Your task to perform on an android device: turn off improve location accuracy Image 0: 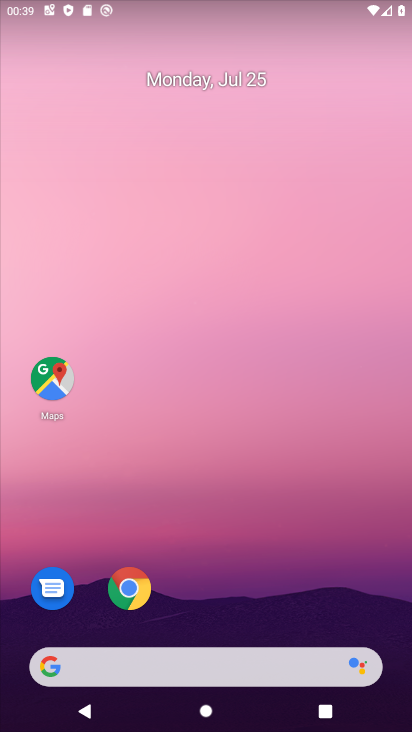
Step 0: drag from (223, 596) to (243, 18)
Your task to perform on an android device: turn off improve location accuracy Image 1: 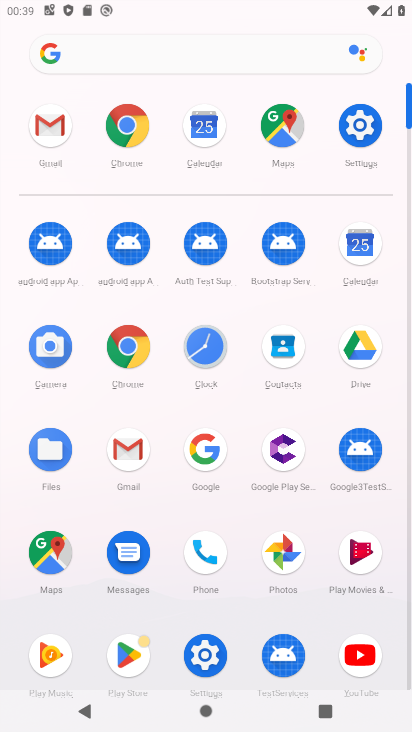
Step 1: click (203, 659)
Your task to perform on an android device: turn off improve location accuracy Image 2: 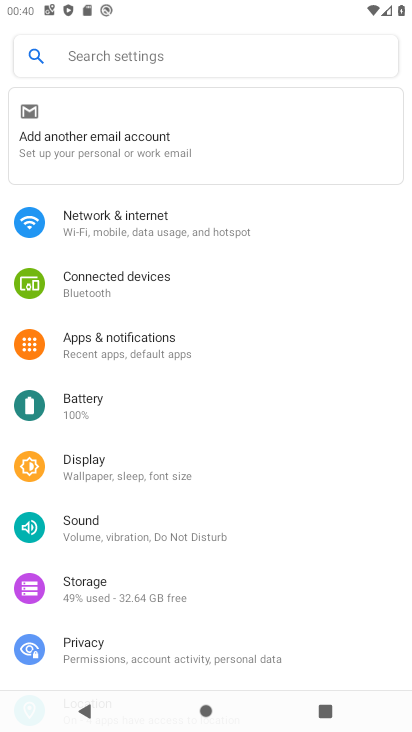
Step 2: drag from (126, 593) to (150, 304)
Your task to perform on an android device: turn off improve location accuracy Image 3: 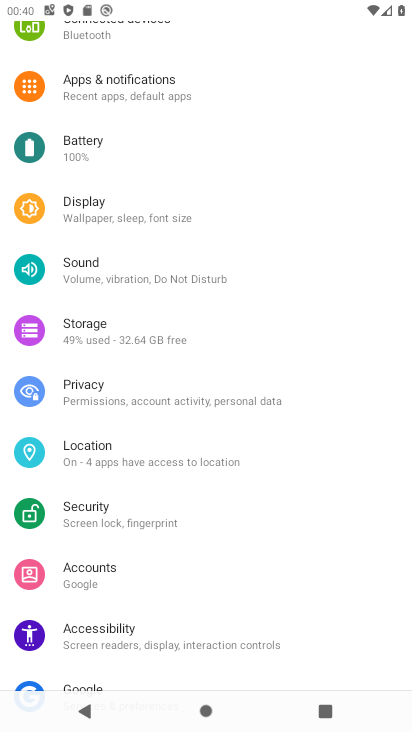
Step 3: click (124, 460)
Your task to perform on an android device: turn off improve location accuracy Image 4: 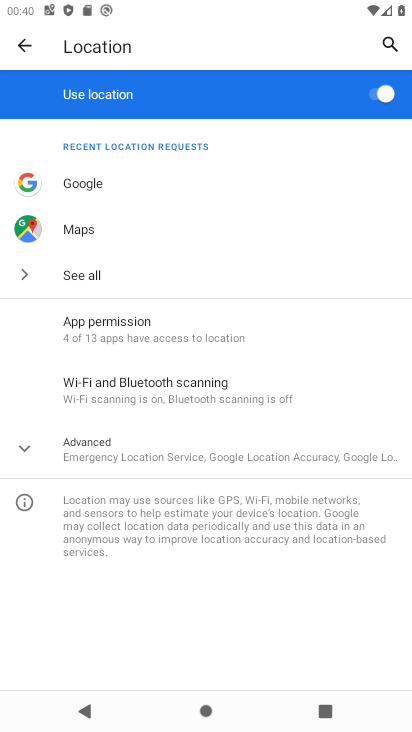
Step 4: click (145, 457)
Your task to perform on an android device: turn off improve location accuracy Image 5: 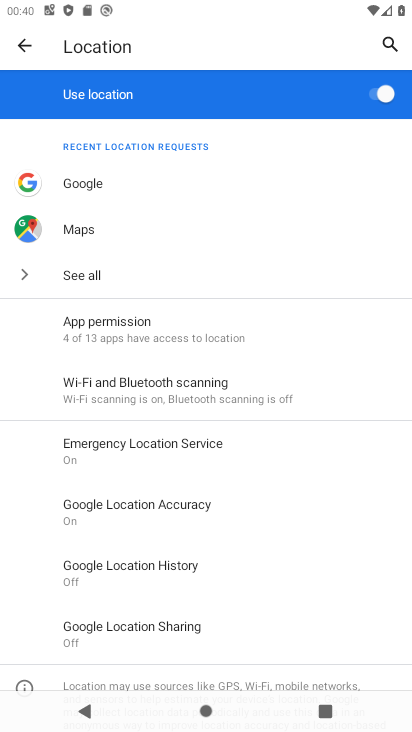
Step 5: click (170, 507)
Your task to perform on an android device: turn off improve location accuracy Image 6: 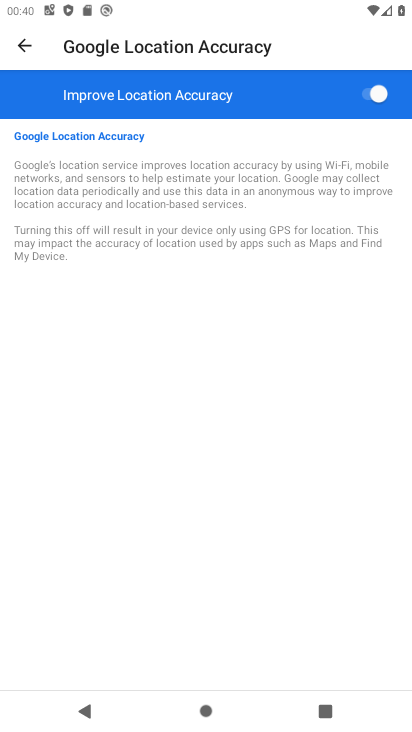
Step 6: click (332, 96)
Your task to perform on an android device: turn off improve location accuracy Image 7: 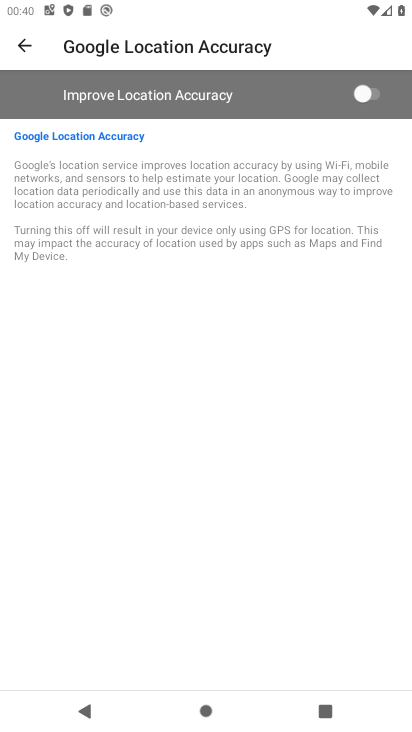
Step 7: task complete